Your task to perform on an android device: Open calendar and show me the third week of next month Image 0: 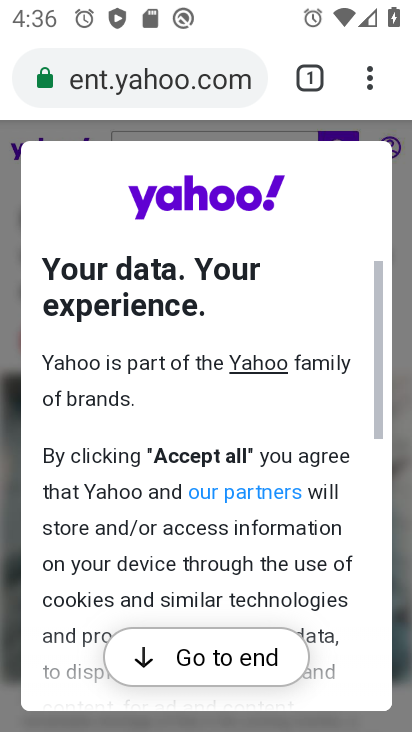
Step 0: press home button
Your task to perform on an android device: Open calendar and show me the third week of next month Image 1: 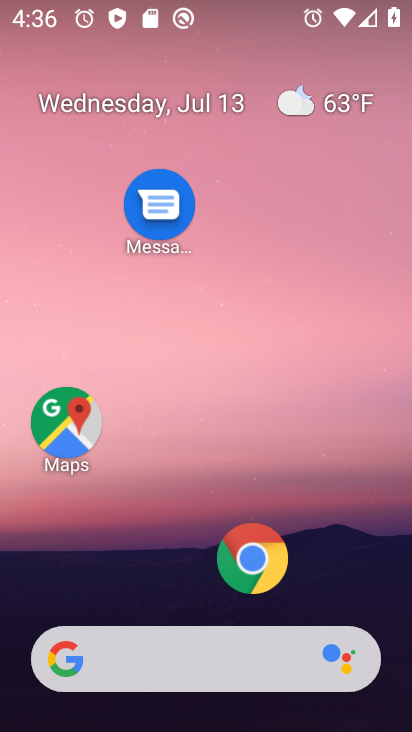
Step 1: drag from (193, 632) to (172, 321)
Your task to perform on an android device: Open calendar and show me the third week of next month Image 2: 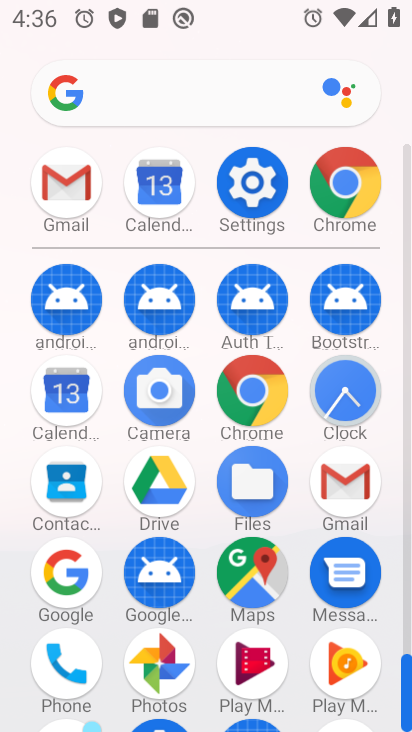
Step 2: click (163, 185)
Your task to perform on an android device: Open calendar and show me the third week of next month Image 3: 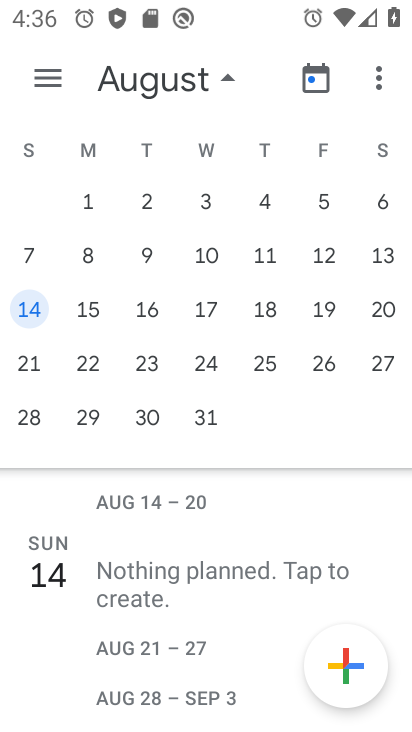
Step 3: click (19, 306)
Your task to perform on an android device: Open calendar and show me the third week of next month Image 4: 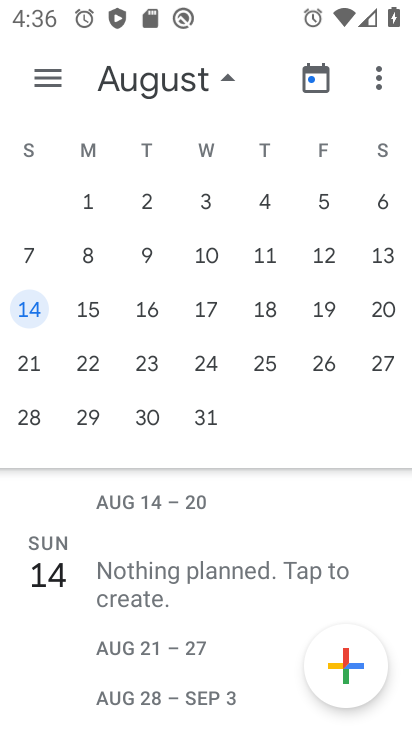
Step 4: task complete